Your task to perform on an android device: Open Maps and search for coffee Image 0: 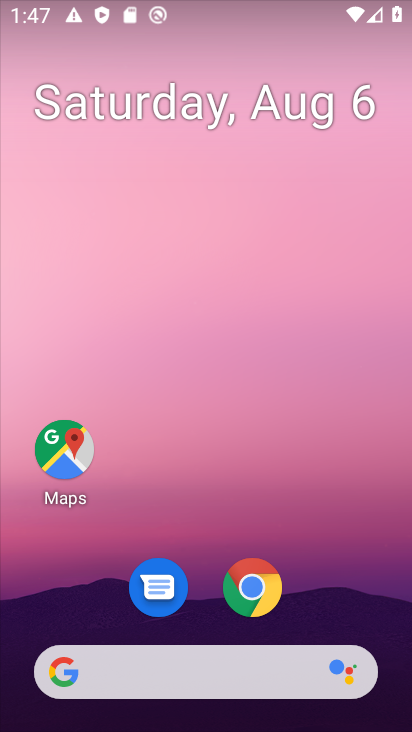
Step 0: click (80, 457)
Your task to perform on an android device: Open Maps and search for coffee Image 1: 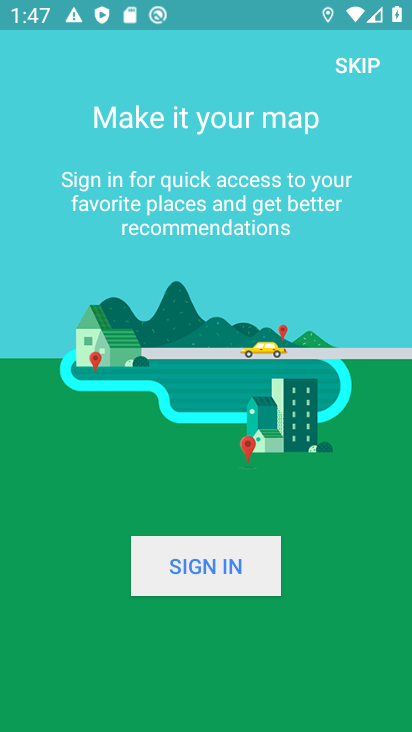
Step 1: click (201, 582)
Your task to perform on an android device: Open Maps and search for coffee Image 2: 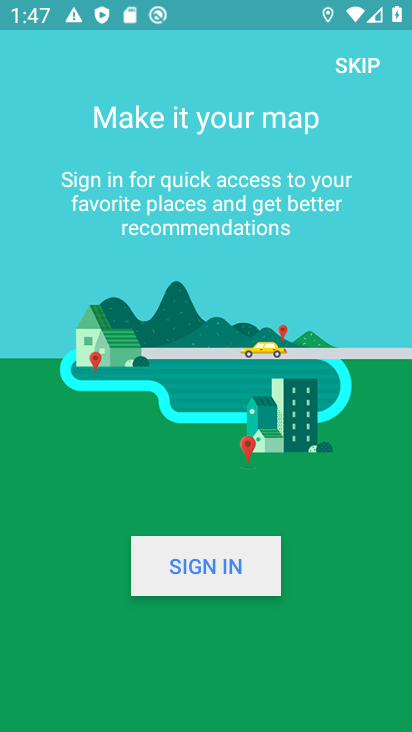
Step 2: click (361, 62)
Your task to perform on an android device: Open Maps and search for coffee Image 3: 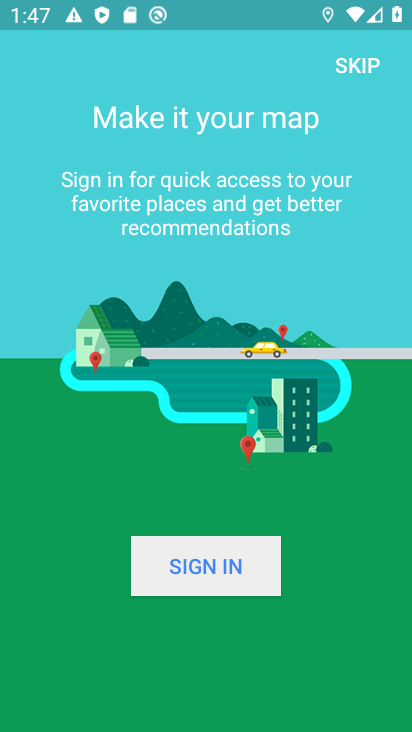
Step 3: click (368, 61)
Your task to perform on an android device: Open Maps and search for coffee Image 4: 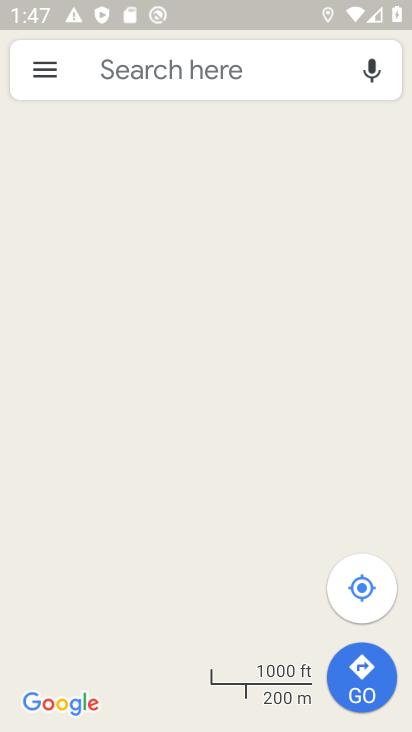
Step 4: click (247, 78)
Your task to perform on an android device: Open Maps and search for coffee Image 5: 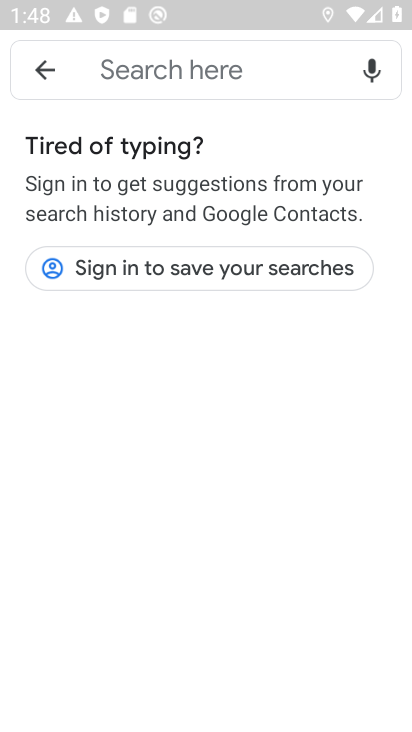
Step 5: type "coffee"
Your task to perform on an android device: Open Maps and search for coffee Image 6: 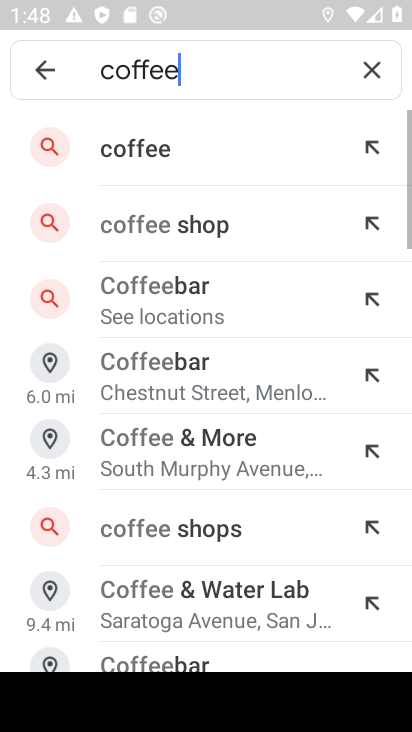
Step 6: click (180, 146)
Your task to perform on an android device: Open Maps and search for coffee Image 7: 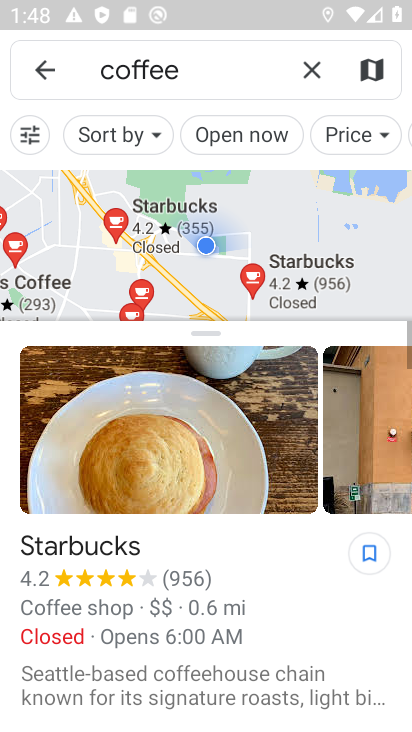
Step 7: task complete